Your task to perform on an android device: Is it going to rain today? Image 0: 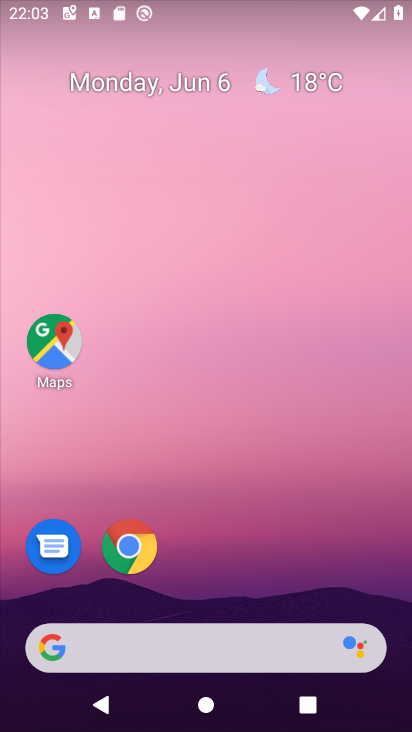
Step 0: click (291, 79)
Your task to perform on an android device: Is it going to rain today? Image 1: 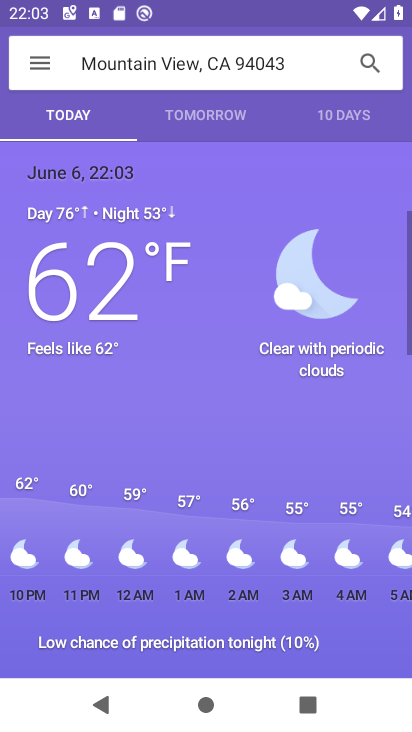
Step 1: task complete